Your task to perform on an android device: Open sound settings Image 0: 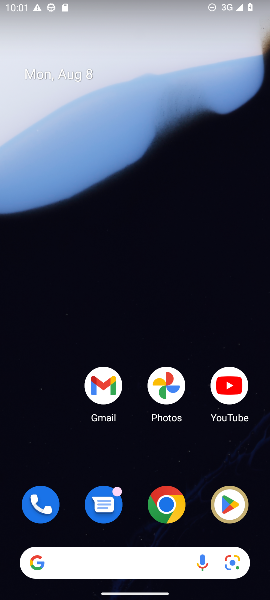
Step 0: drag from (147, 441) to (156, 128)
Your task to perform on an android device: Open sound settings Image 1: 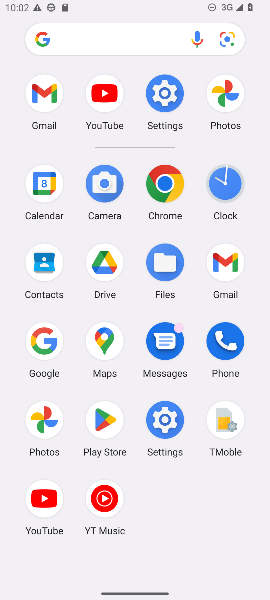
Step 1: click (175, 422)
Your task to perform on an android device: Open sound settings Image 2: 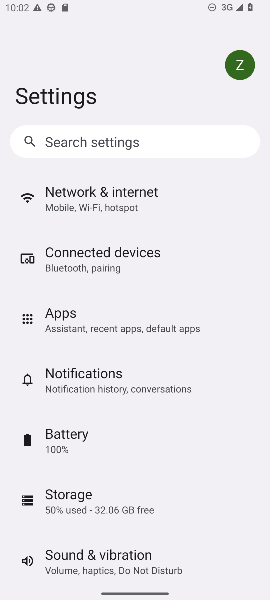
Step 2: drag from (90, 454) to (102, 292)
Your task to perform on an android device: Open sound settings Image 3: 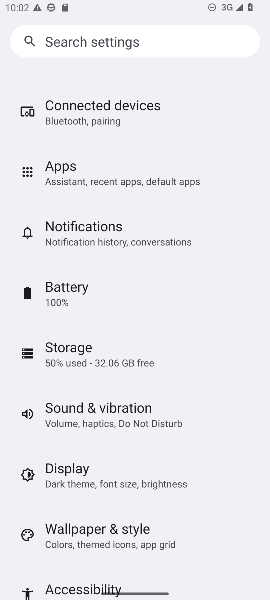
Step 3: click (77, 412)
Your task to perform on an android device: Open sound settings Image 4: 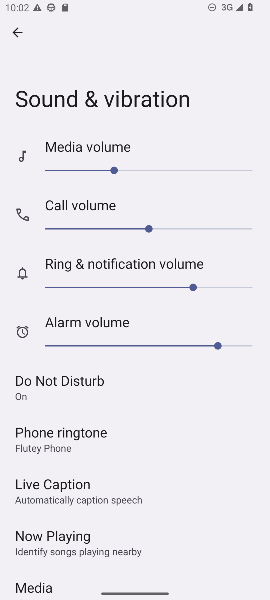
Step 4: task complete